Your task to perform on an android device: check google app version Image 0: 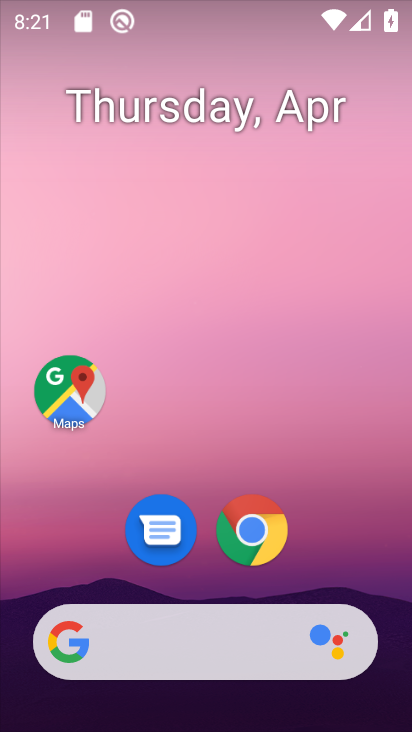
Step 0: drag from (341, 598) to (343, 96)
Your task to perform on an android device: check google app version Image 1: 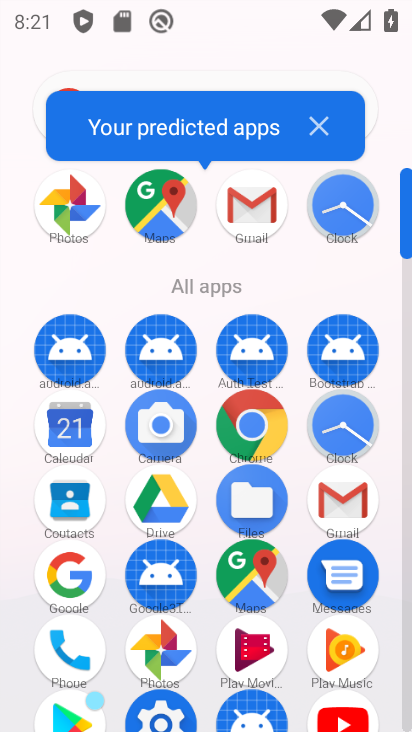
Step 1: drag from (194, 614) to (271, 225)
Your task to perform on an android device: check google app version Image 2: 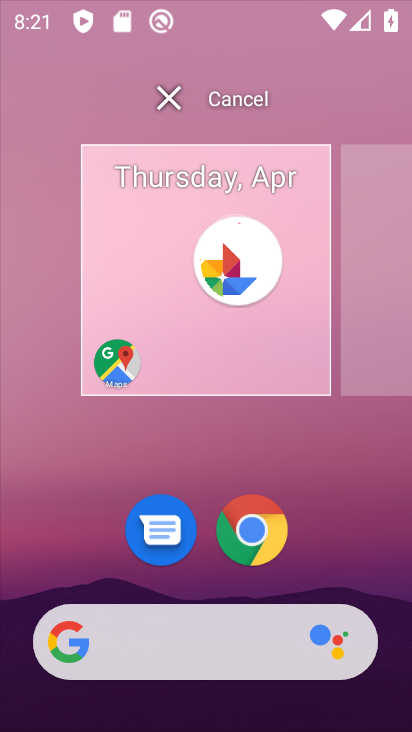
Step 2: drag from (308, 512) to (306, 108)
Your task to perform on an android device: check google app version Image 3: 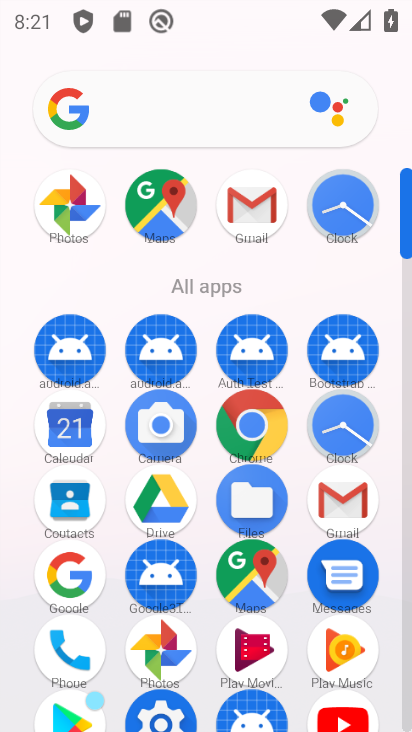
Step 3: drag from (205, 610) to (243, 292)
Your task to perform on an android device: check google app version Image 4: 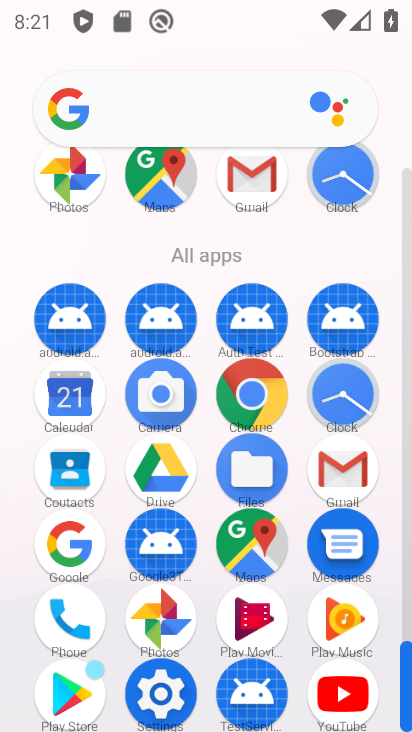
Step 4: click (79, 558)
Your task to perform on an android device: check google app version Image 5: 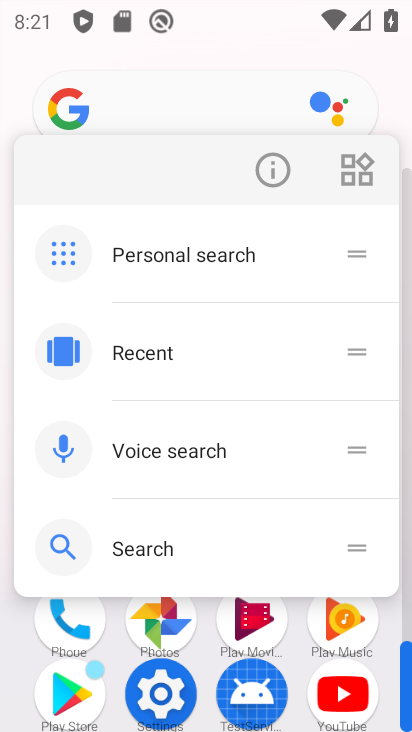
Step 5: click (266, 168)
Your task to perform on an android device: check google app version Image 6: 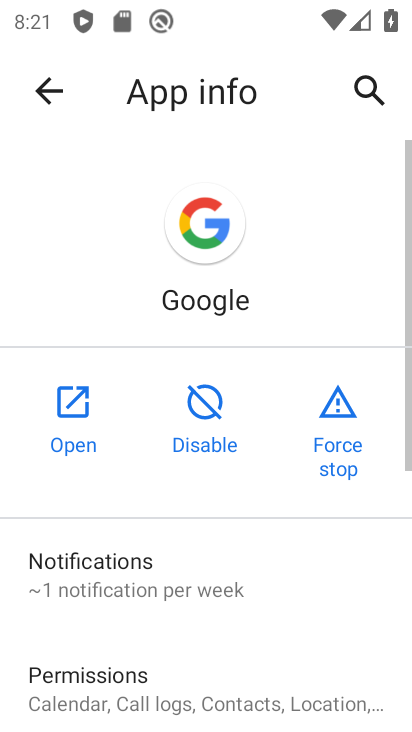
Step 6: drag from (242, 591) to (358, 117)
Your task to perform on an android device: check google app version Image 7: 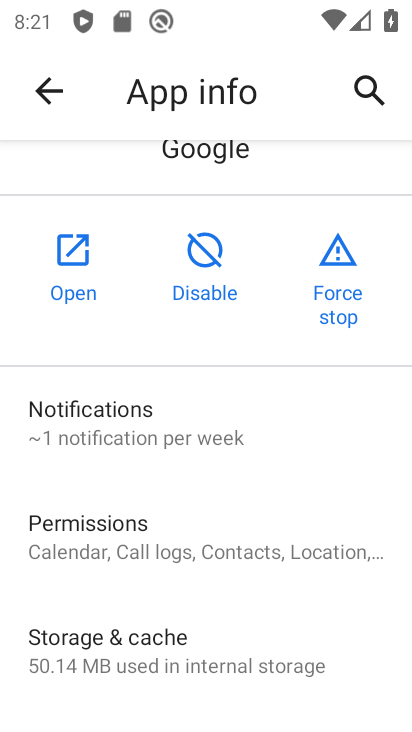
Step 7: drag from (174, 658) to (236, 332)
Your task to perform on an android device: check google app version Image 8: 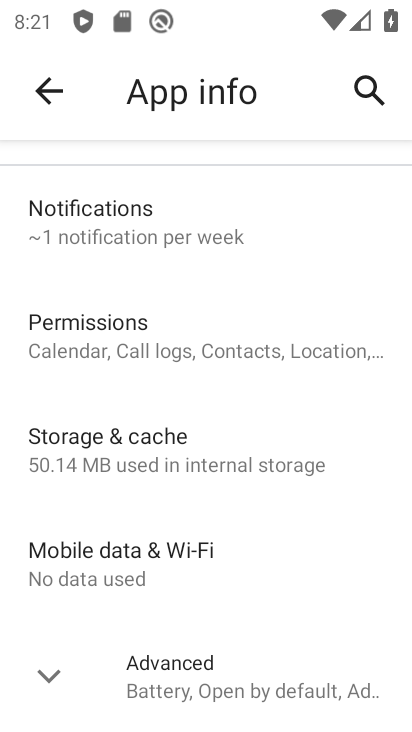
Step 8: drag from (245, 636) to (272, 342)
Your task to perform on an android device: check google app version Image 9: 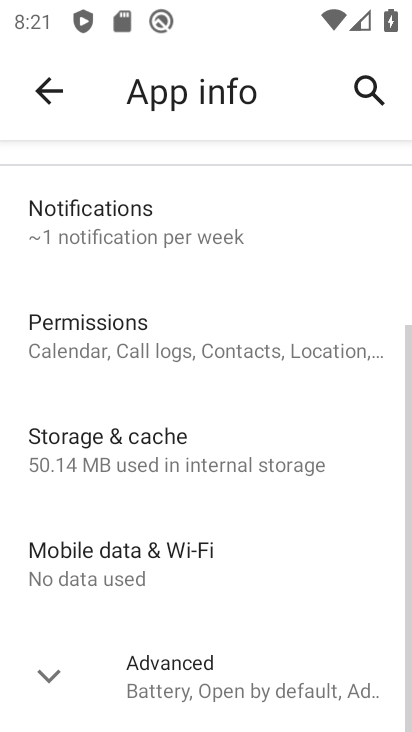
Step 9: click (98, 673)
Your task to perform on an android device: check google app version Image 10: 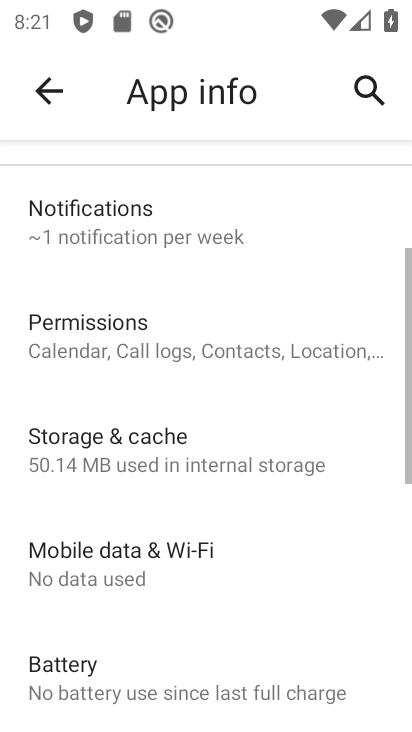
Step 10: task complete